Your task to perform on an android device: open chrome privacy settings Image 0: 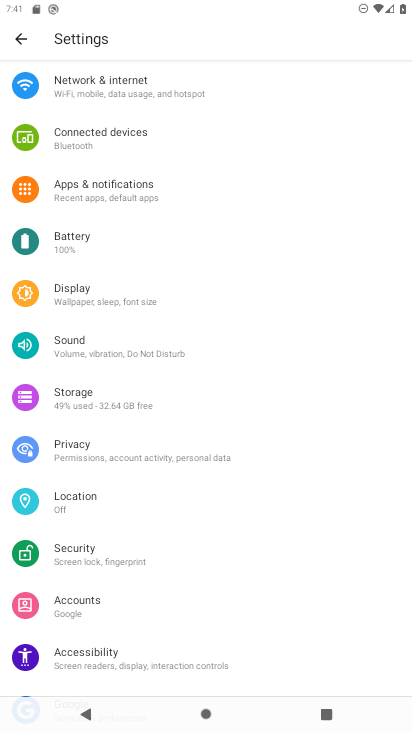
Step 0: press home button
Your task to perform on an android device: open chrome privacy settings Image 1: 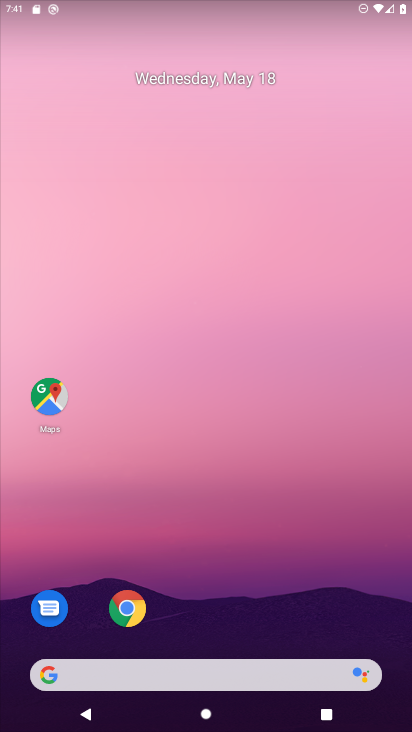
Step 1: click (139, 605)
Your task to perform on an android device: open chrome privacy settings Image 2: 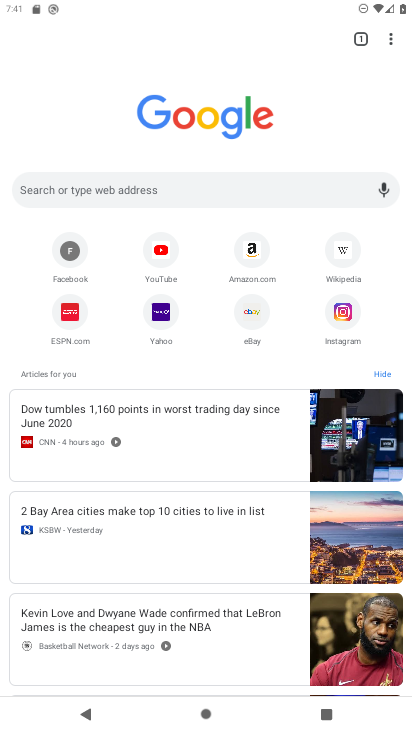
Step 2: click (395, 43)
Your task to perform on an android device: open chrome privacy settings Image 3: 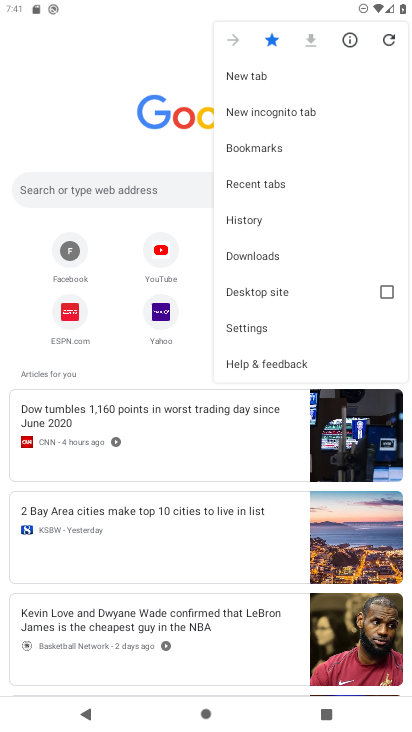
Step 3: click (262, 328)
Your task to perform on an android device: open chrome privacy settings Image 4: 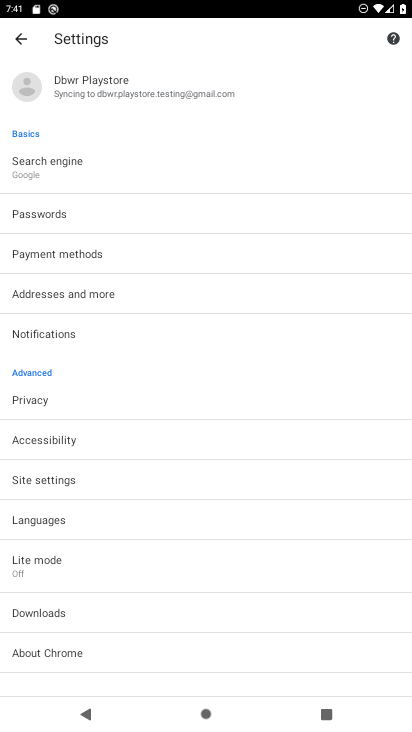
Step 4: click (85, 398)
Your task to perform on an android device: open chrome privacy settings Image 5: 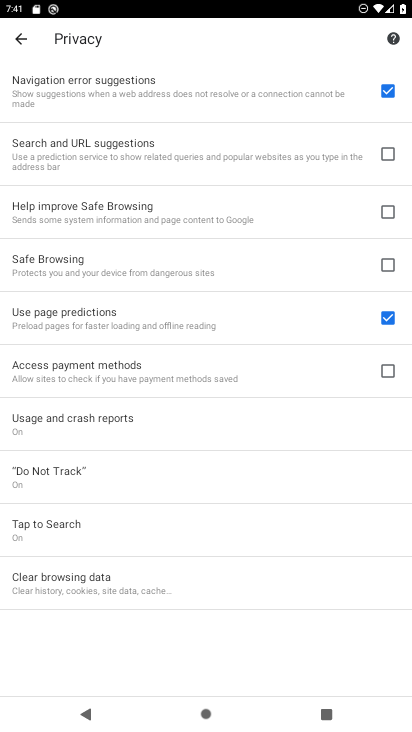
Step 5: task complete